Your task to perform on an android device: Open calendar and show me the first week of next month Image 0: 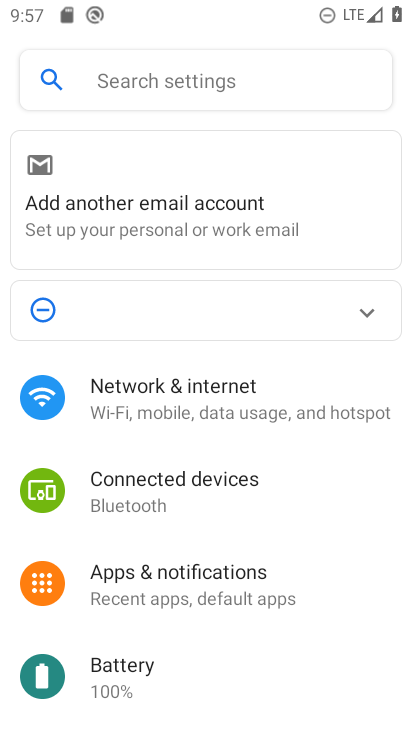
Step 0: drag from (281, 688) to (283, 347)
Your task to perform on an android device: Open calendar and show me the first week of next month Image 1: 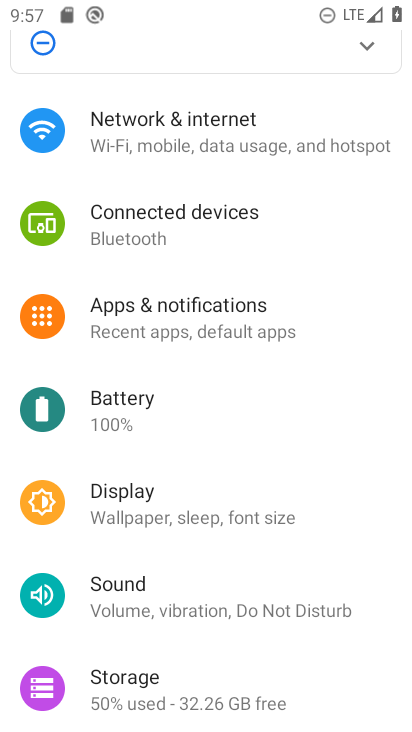
Step 1: drag from (310, 641) to (312, 399)
Your task to perform on an android device: Open calendar and show me the first week of next month Image 2: 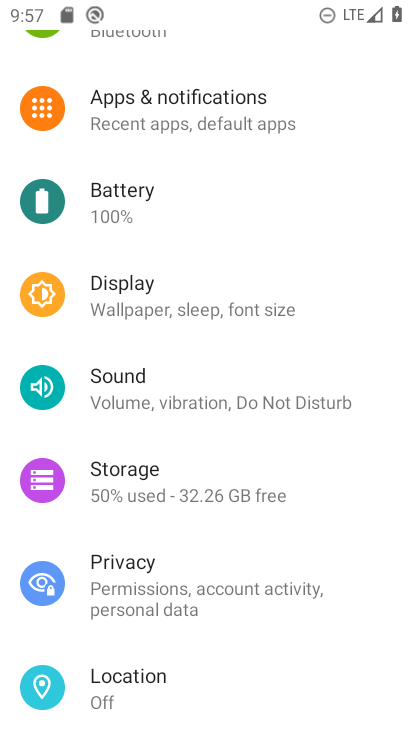
Step 2: drag from (296, 618) to (311, 264)
Your task to perform on an android device: Open calendar and show me the first week of next month Image 3: 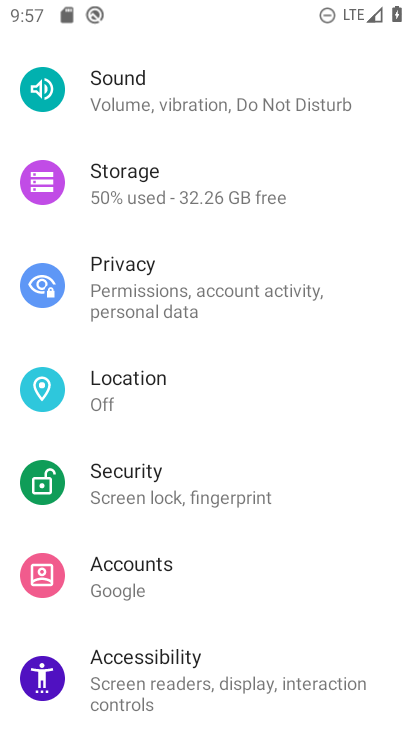
Step 3: drag from (283, 233) to (249, 629)
Your task to perform on an android device: Open calendar and show me the first week of next month Image 4: 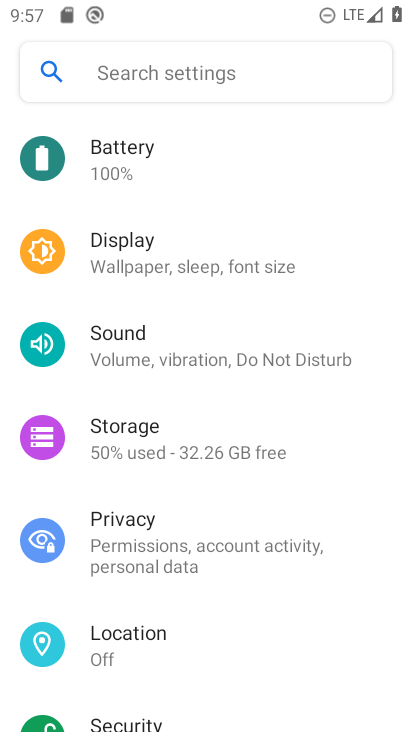
Step 4: drag from (254, 208) to (265, 571)
Your task to perform on an android device: Open calendar and show me the first week of next month Image 5: 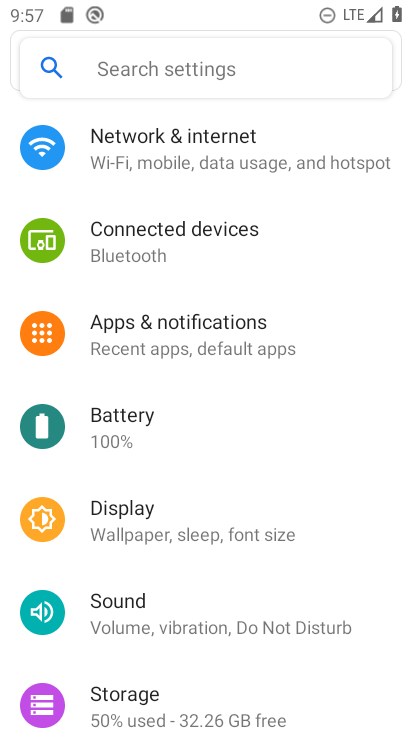
Step 5: press home button
Your task to perform on an android device: Open calendar and show me the first week of next month Image 6: 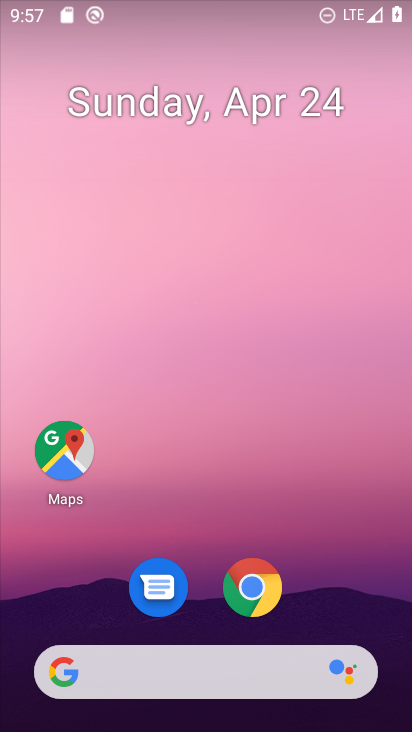
Step 6: drag from (339, 579) to (323, 100)
Your task to perform on an android device: Open calendar and show me the first week of next month Image 7: 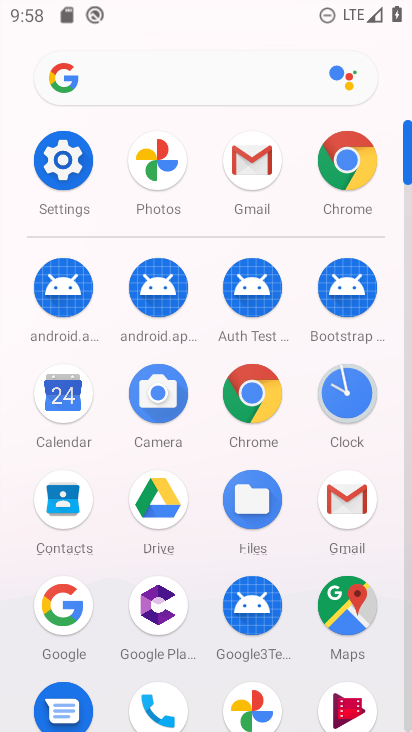
Step 7: click (62, 413)
Your task to perform on an android device: Open calendar and show me the first week of next month Image 8: 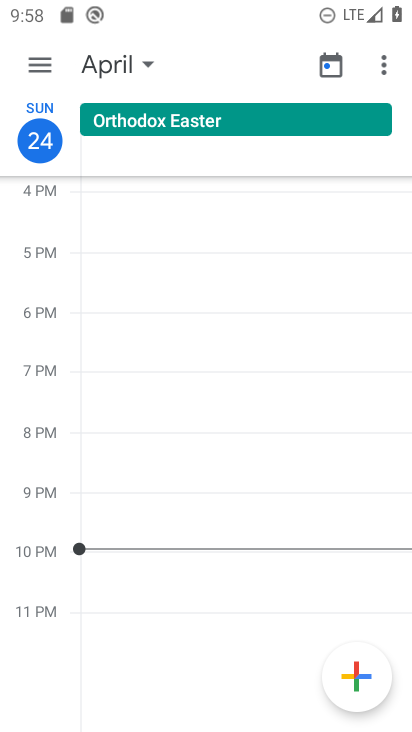
Step 8: click (118, 73)
Your task to perform on an android device: Open calendar and show me the first week of next month Image 9: 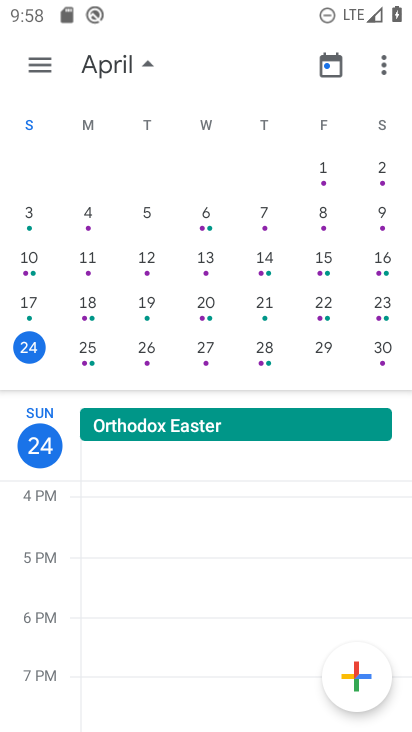
Step 9: drag from (350, 155) to (16, 171)
Your task to perform on an android device: Open calendar and show me the first week of next month Image 10: 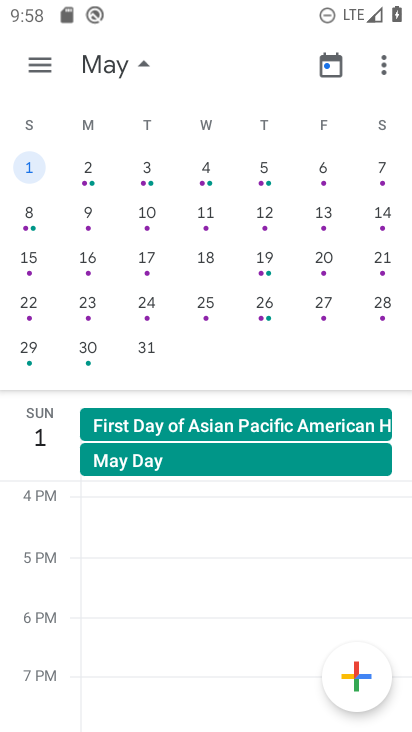
Step 10: click (28, 173)
Your task to perform on an android device: Open calendar and show me the first week of next month Image 11: 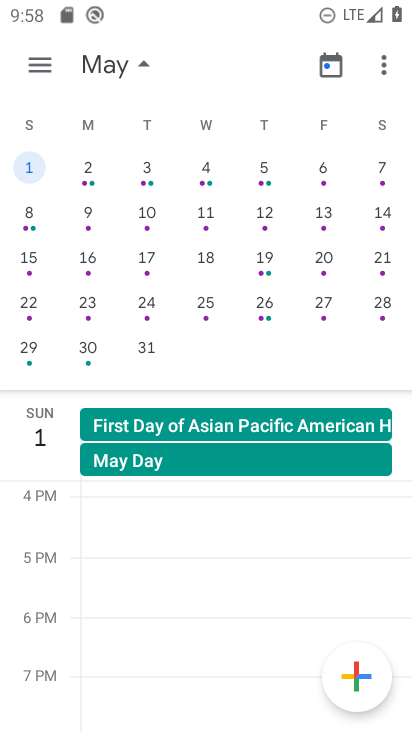
Step 11: click (42, 61)
Your task to perform on an android device: Open calendar and show me the first week of next month Image 12: 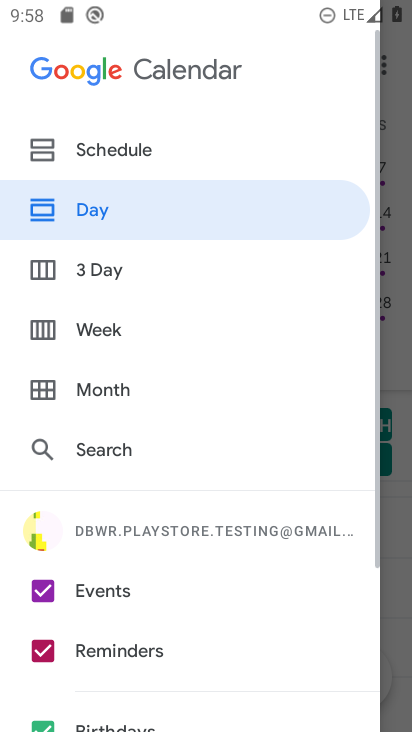
Step 12: click (102, 152)
Your task to perform on an android device: Open calendar and show me the first week of next month Image 13: 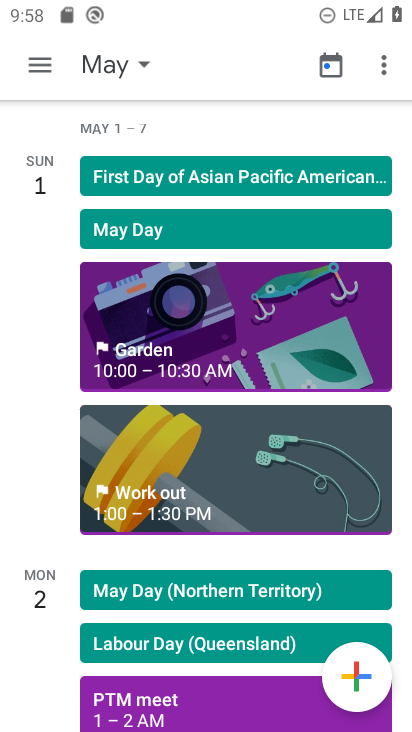
Step 13: task complete